Your task to perform on an android device: turn notification dots on Image 0: 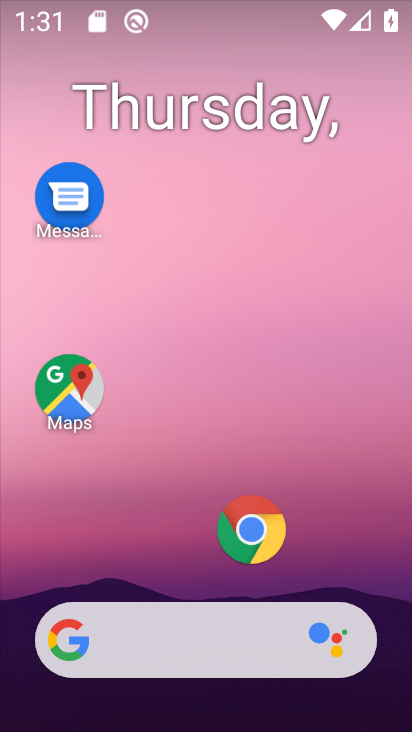
Step 0: drag from (212, 583) to (195, 109)
Your task to perform on an android device: turn notification dots on Image 1: 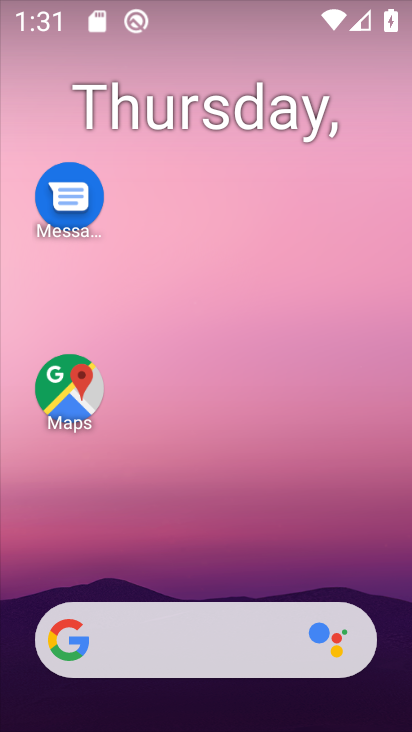
Step 1: drag from (195, 533) to (186, 139)
Your task to perform on an android device: turn notification dots on Image 2: 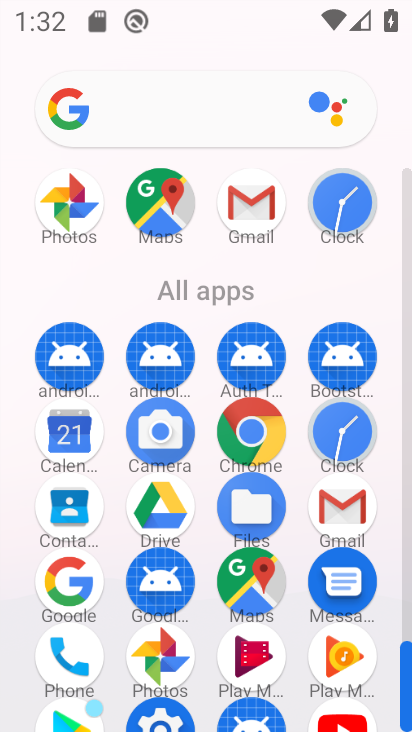
Step 2: drag from (18, 647) to (4, 327)
Your task to perform on an android device: turn notification dots on Image 3: 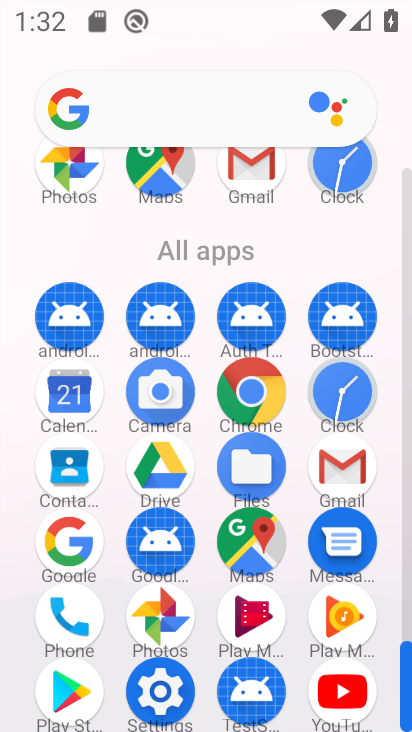
Step 3: click (163, 690)
Your task to perform on an android device: turn notification dots on Image 4: 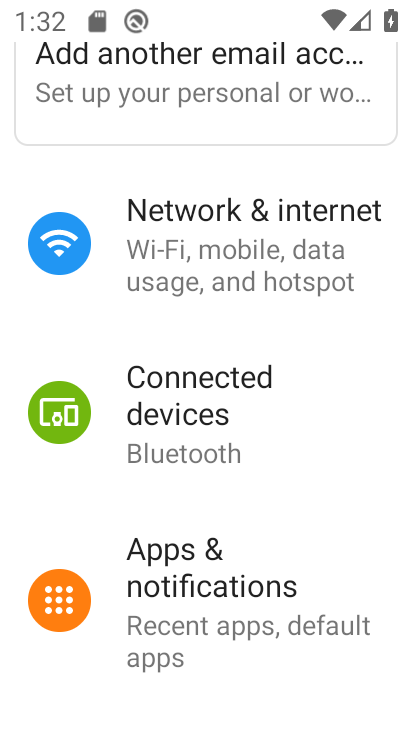
Step 4: click (211, 598)
Your task to perform on an android device: turn notification dots on Image 5: 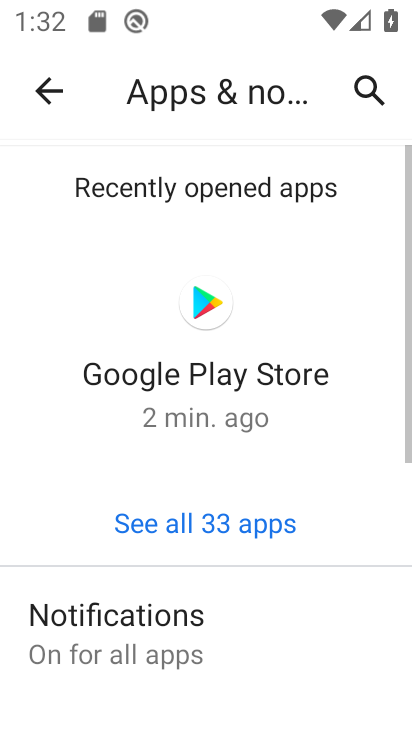
Step 5: click (139, 639)
Your task to perform on an android device: turn notification dots on Image 6: 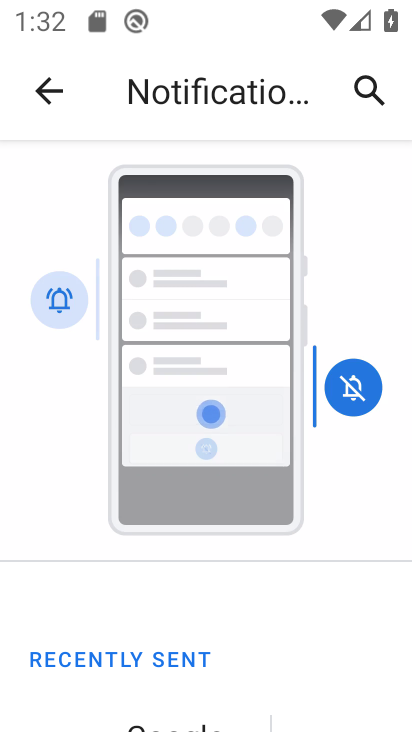
Step 6: drag from (165, 680) to (135, 217)
Your task to perform on an android device: turn notification dots on Image 7: 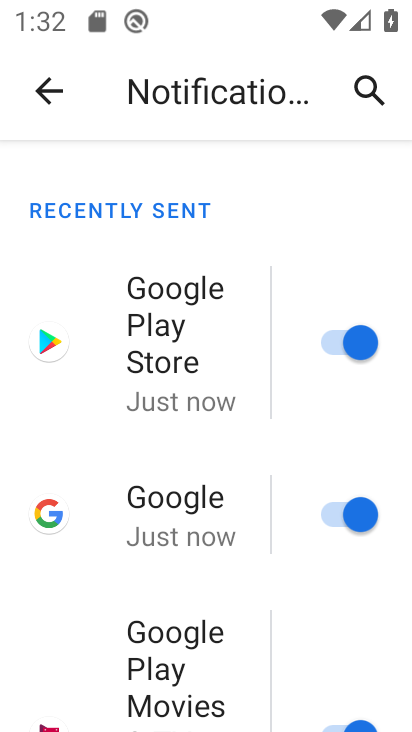
Step 7: drag from (252, 698) to (250, 251)
Your task to perform on an android device: turn notification dots on Image 8: 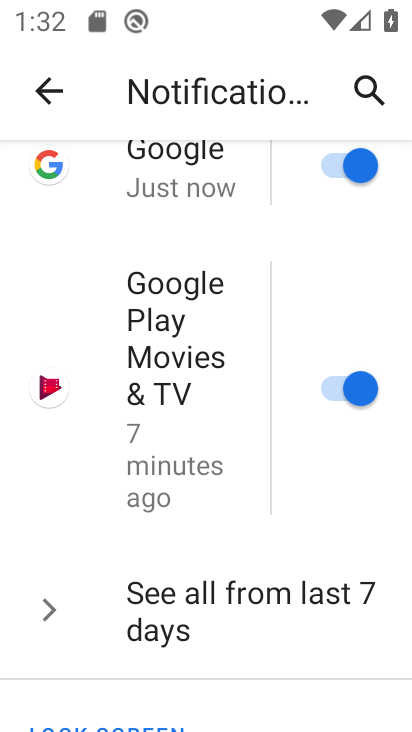
Step 8: drag from (224, 614) to (238, 276)
Your task to perform on an android device: turn notification dots on Image 9: 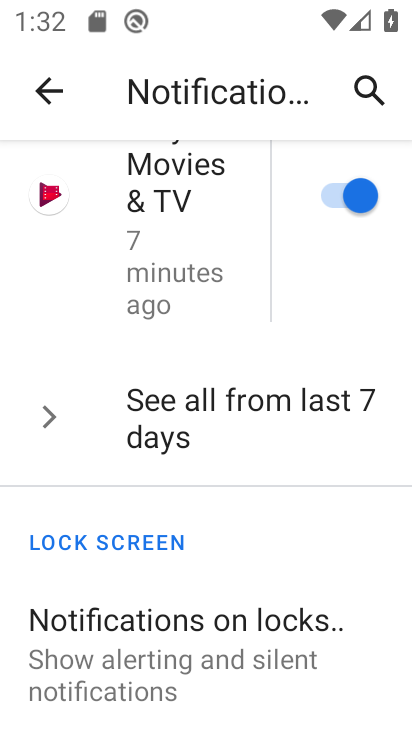
Step 9: drag from (204, 688) to (205, 334)
Your task to perform on an android device: turn notification dots on Image 10: 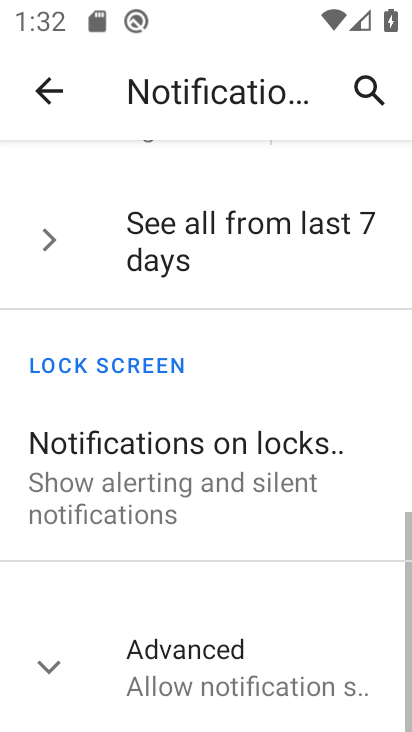
Step 10: drag from (98, 654) to (112, 483)
Your task to perform on an android device: turn notification dots on Image 11: 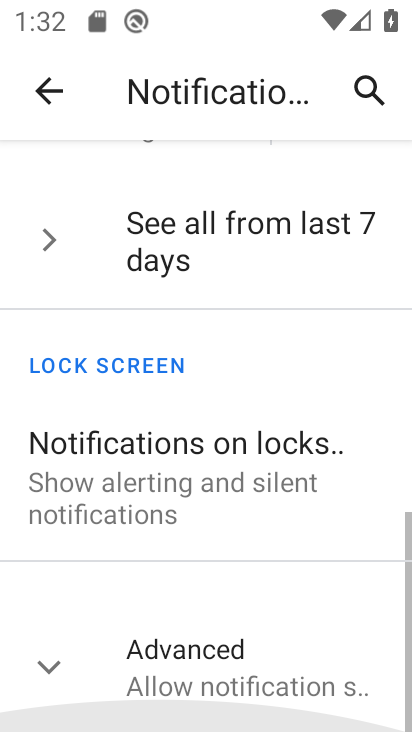
Step 11: click (50, 661)
Your task to perform on an android device: turn notification dots on Image 12: 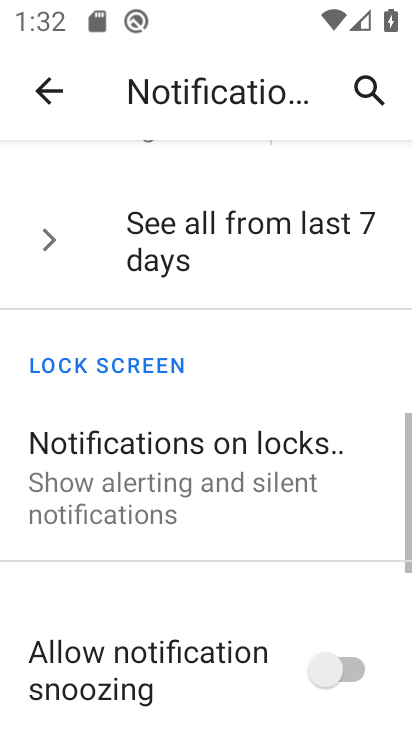
Step 12: task complete